Your task to perform on an android device: Go to settings Image 0: 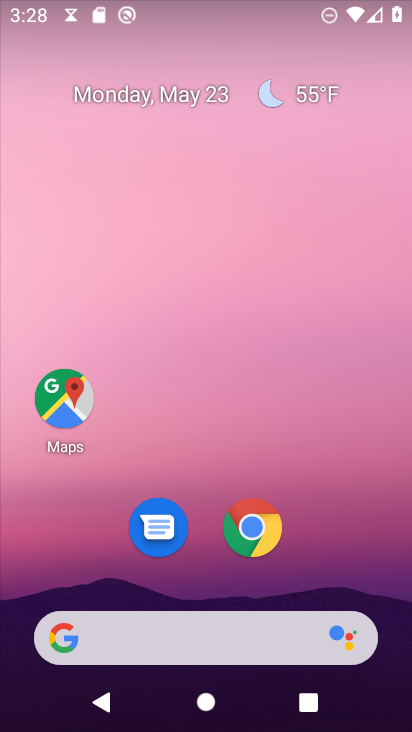
Step 0: press home button
Your task to perform on an android device: Go to settings Image 1: 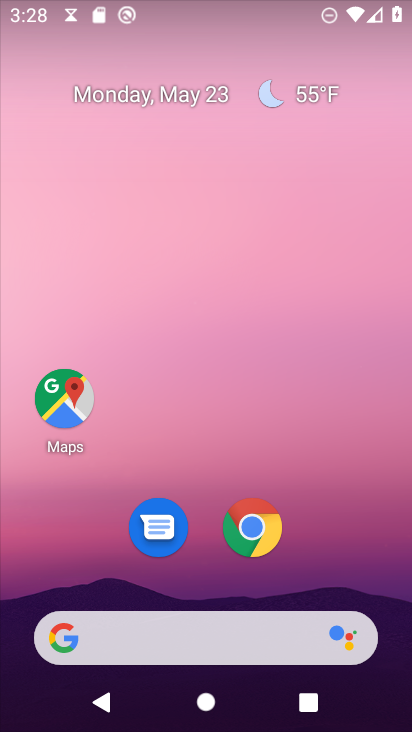
Step 1: drag from (202, 589) to (229, 199)
Your task to perform on an android device: Go to settings Image 2: 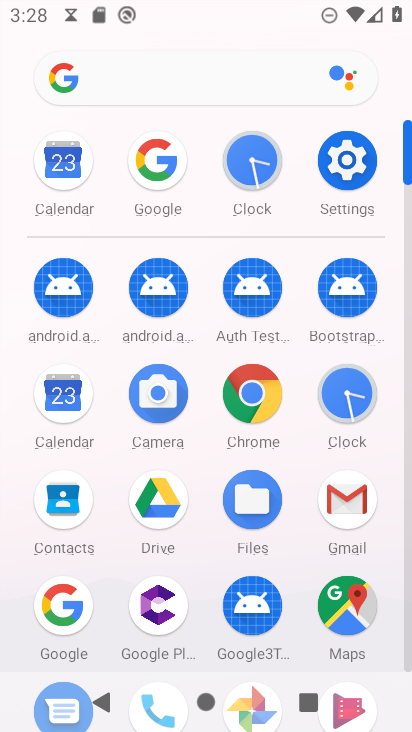
Step 2: click (344, 154)
Your task to perform on an android device: Go to settings Image 3: 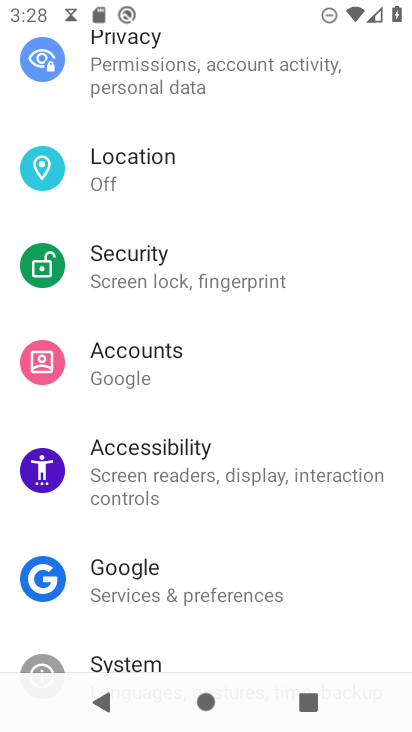
Step 3: task complete